Your task to perform on an android device: Do I have any events this weekend? Image 0: 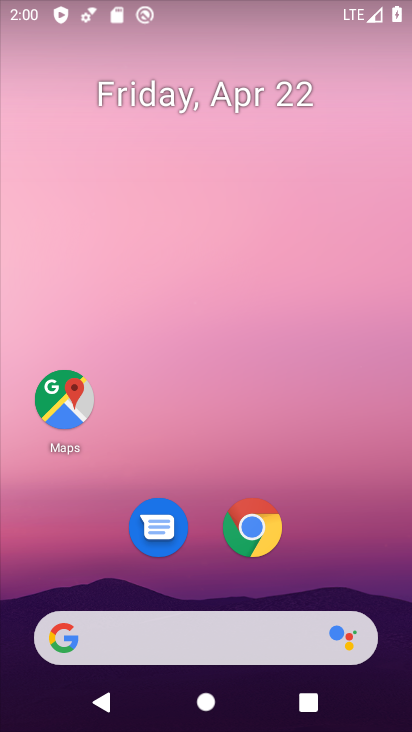
Step 0: drag from (277, 424) to (103, 107)
Your task to perform on an android device: Do I have any events this weekend? Image 1: 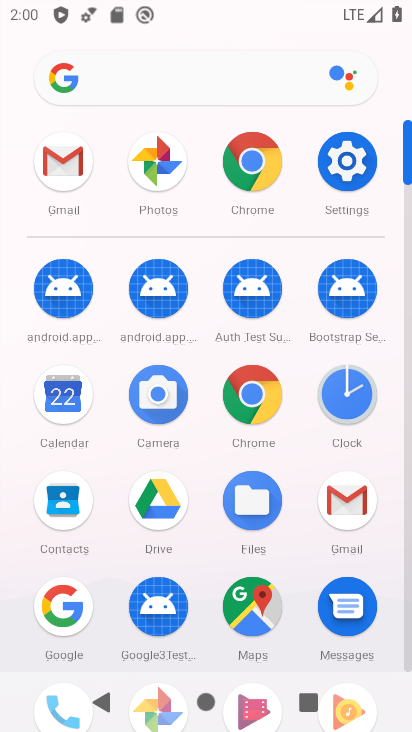
Step 1: click (65, 409)
Your task to perform on an android device: Do I have any events this weekend? Image 2: 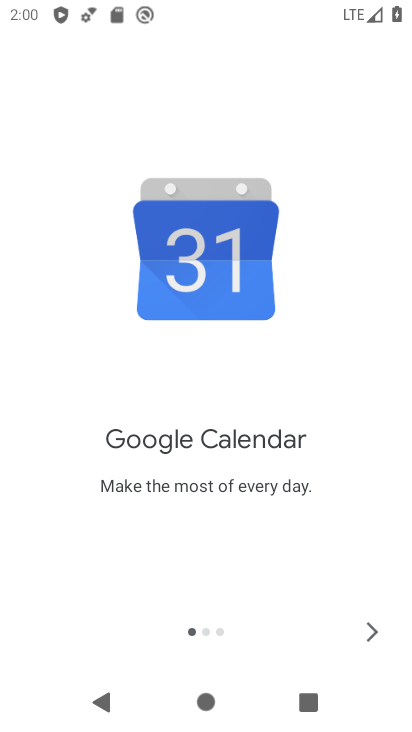
Step 2: click (384, 631)
Your task to perform on an android device: Do I have any events this weekend? Image 3: 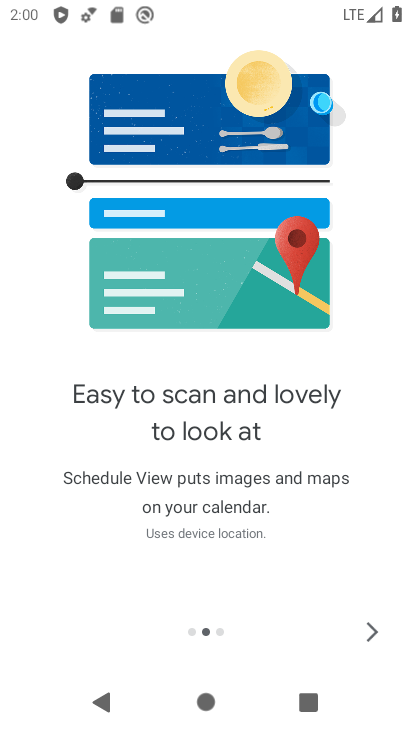
Step 3: click (373, 629)
Your task to perform on an android device: Do I have any events this weekend? Image 4: 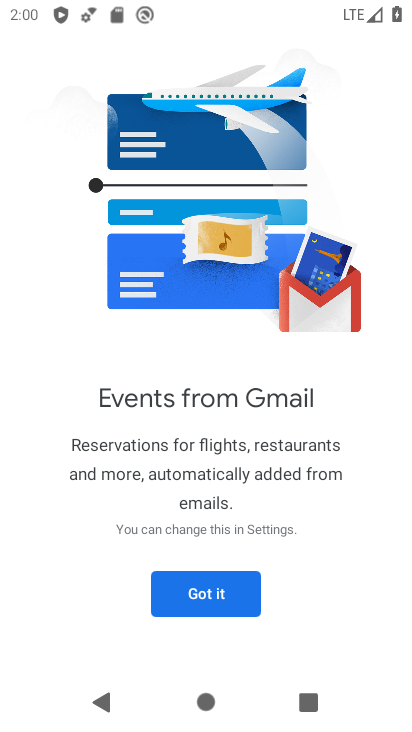
Step 4: click (230, 596)
Your task to perform on an android device: Do I have any events this weekend? Image 5: 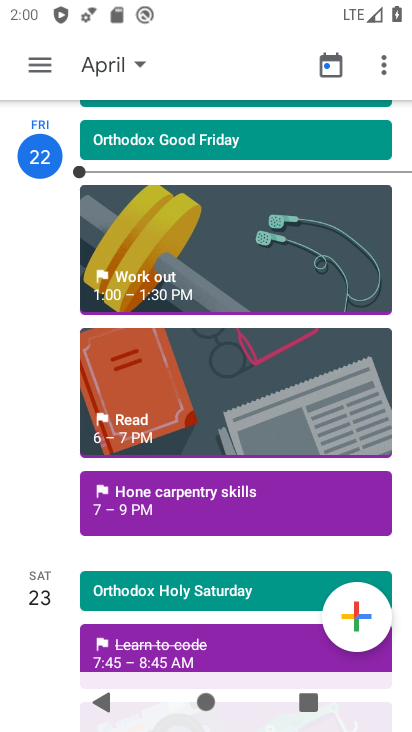
Step 5: task complete